Your task to perform on an android device: Show me popular games on the Play Store Image 0: 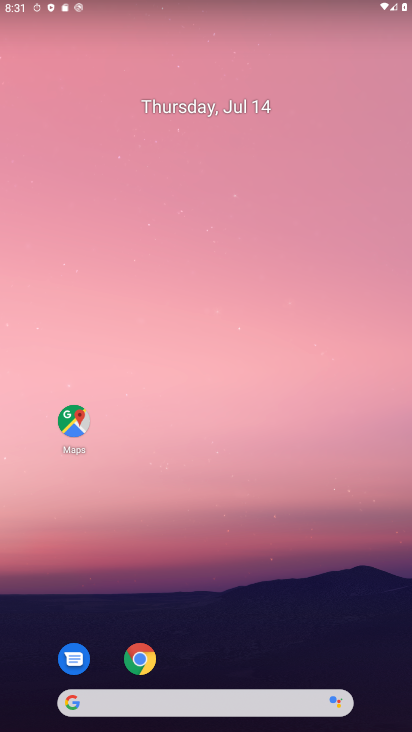
Step 0: drag from (208, 666) to (76, 164)
Your task to perform on an android device: Show me popular games on the Play Store Image 1: 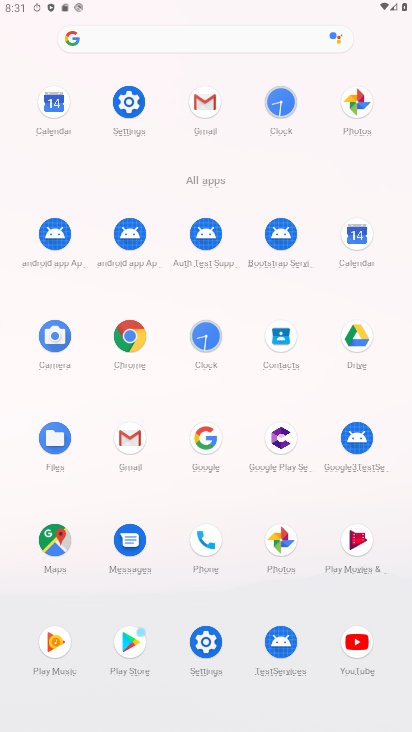
Step 1: click (132, 644)
Your task to perform on an android device: Show me popular games on the Play Store Image 2: 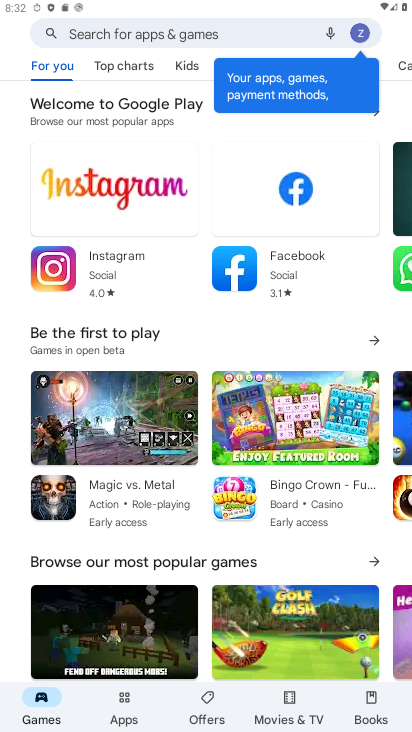
Step 2: click (282, 558)
Your task to perform on an android device: Show me popular games on the Play Store Image 3: 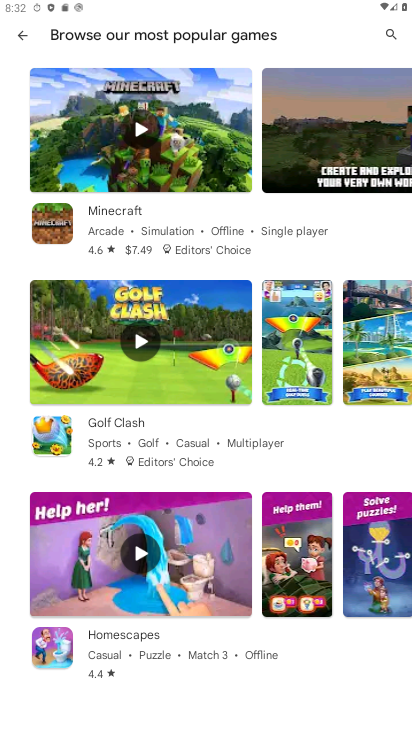
Step 3: task complete